Your task to perform on an android device: turn off javascript in the chrome app Image 0: 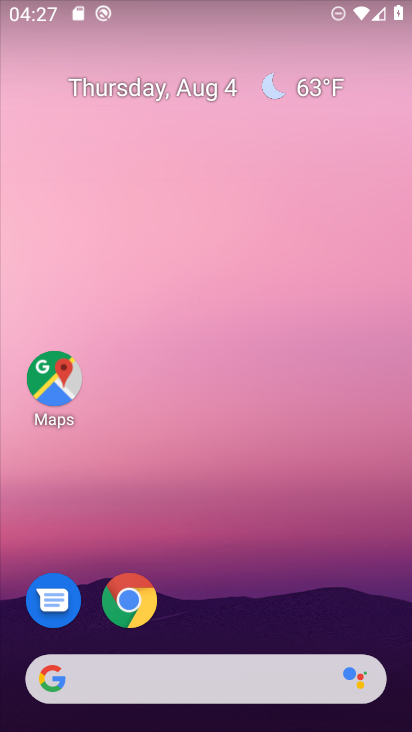
Step 0: drag from (256, 597) to (278, 92)
Your task to perform on an android device: turn off javascript in the chrome app Image 1: 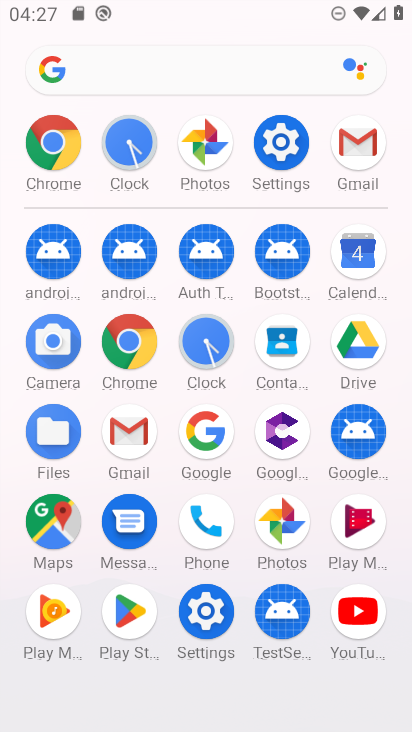
Step 1: click (131, 337)
Your task to perform on an android device: turn off javascript in the chrome app Image 2: 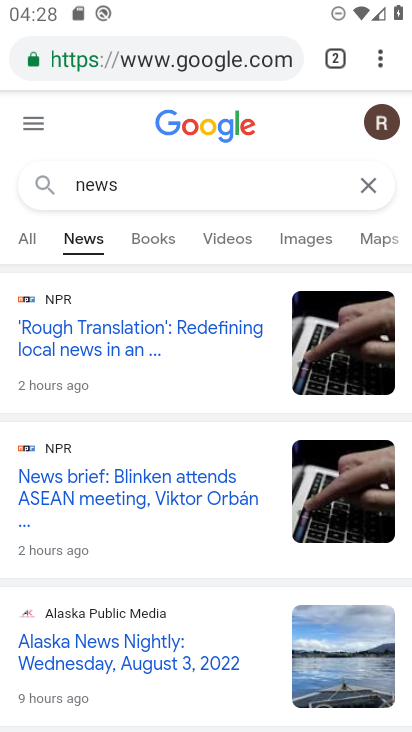
Step 2: drag from (384, 57) to (194, 636)
Your task to perform on an android device: turn off javascript in the chrome app Image 3: 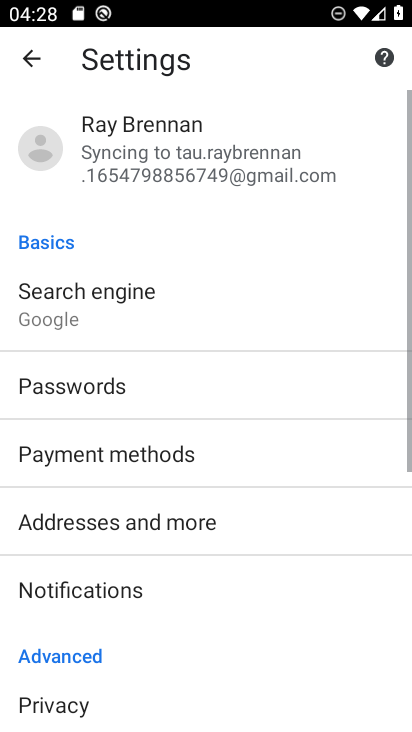
Step 3: drag from (195, 625) to (288, 127)
Your task to perform on an android device: turn off javascript in the chrome app Image 4: 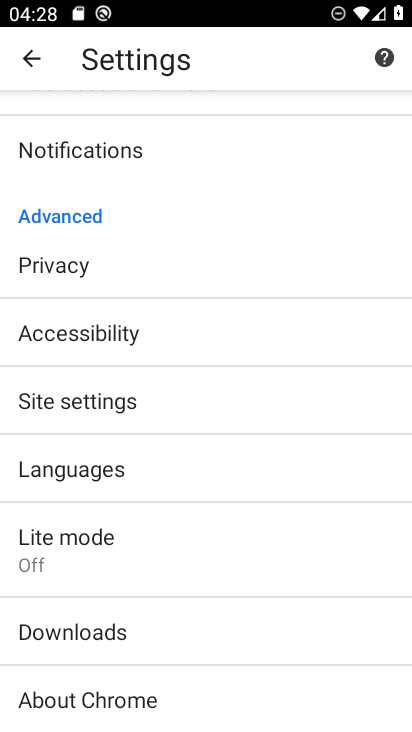
Step 4: click (117, 386)
Your task to perform on an android device: turn off javascript in the chrome app Image 5: 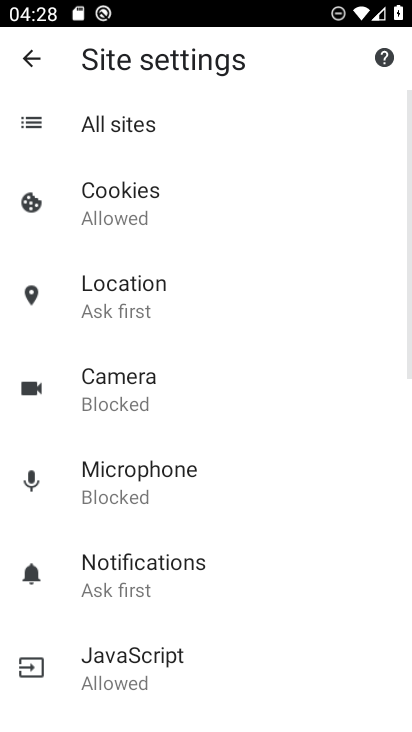
Step 5: drag from (201, 577) to (283, 245)
Your task to perform on an android device: turn off javascript in the chrome app Image 6: 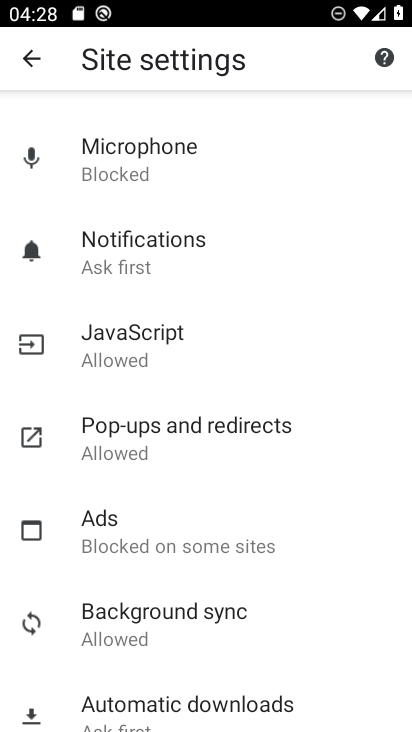
Step 6: click (133, 333)
Your task to perform on an android device: turn off javascript in the chrome app Image 7: 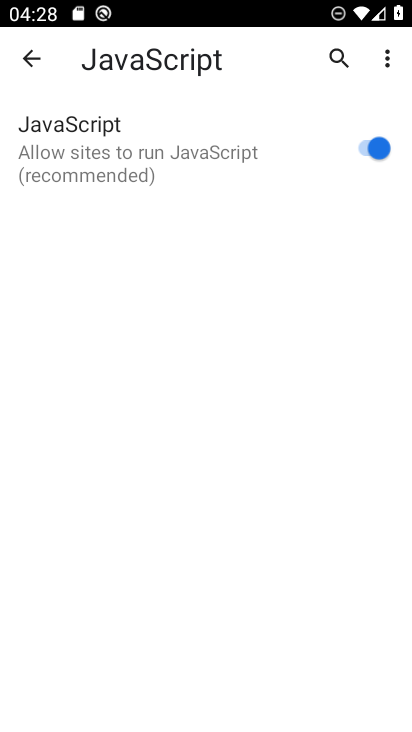
Step 7: click (368, 146)
Your task to perform on an android device: turn off javascript in the chrome app Image 8: 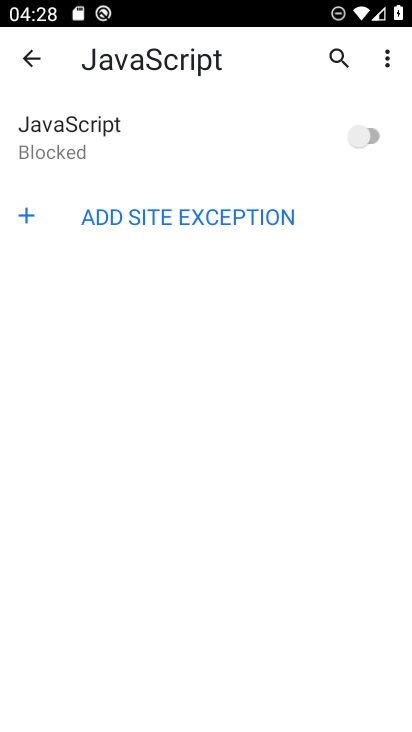
Step 8: task complete